Your task to perform on an android device: delete a single message in the gmail app Image 0: 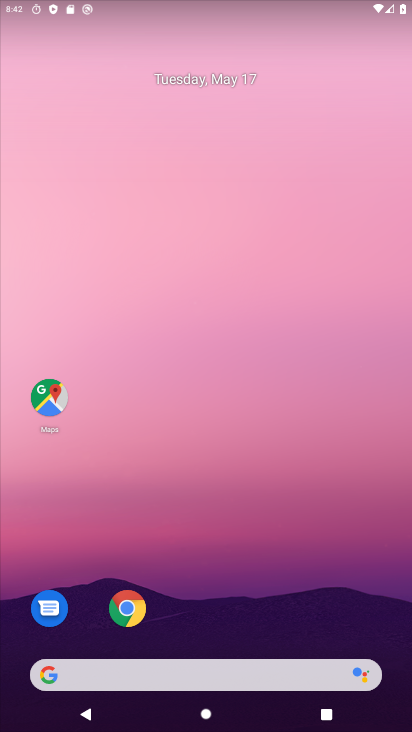
Step 0: drag from (259, 600) to (267, 210)
Your task to perform on an android device: delete a single message in the gmail app Image 1: 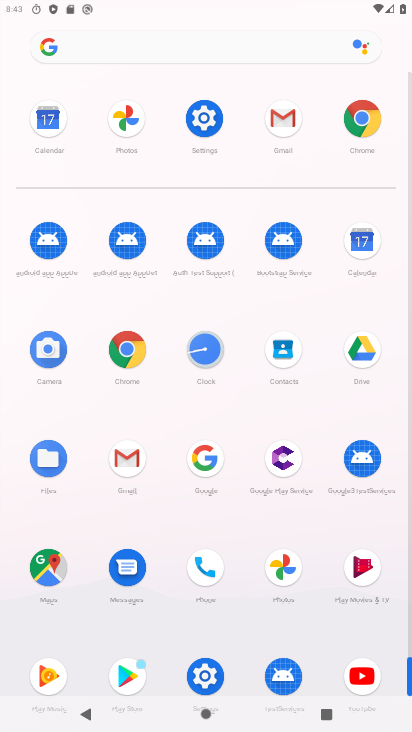
Step 1: click (140, 463)
Your task to perform on an android device: delete a single message in the gmail app Image 2: 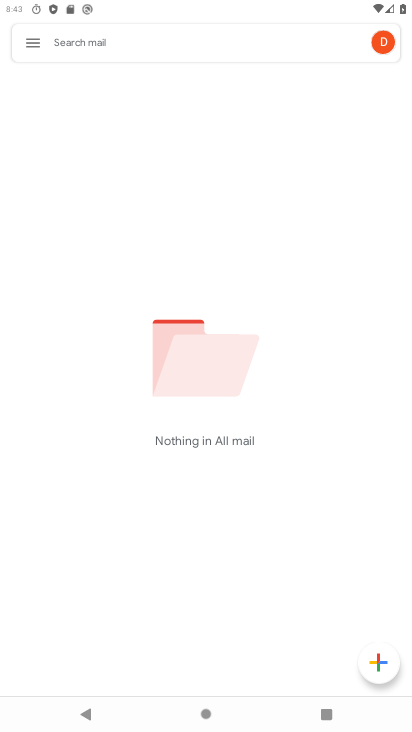
Step 2: task complete